Your task to perform on an android device: install app "Expedia: Hotels, Flights & Car" Image 0: 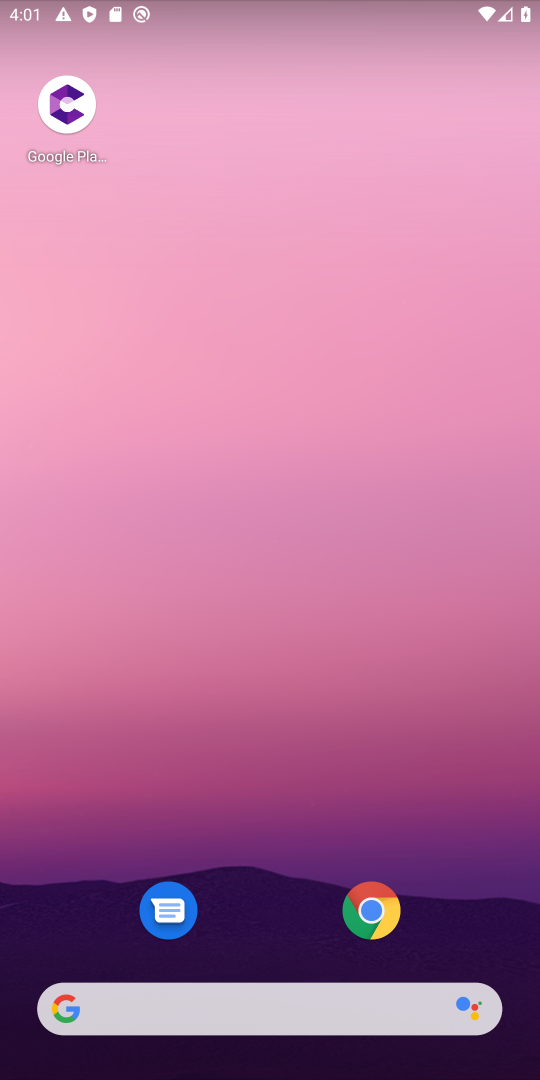
Step 0: press home button
Your task to perform on an android device: install app "Expedia: Hotels, Flights & Car" Image 1: 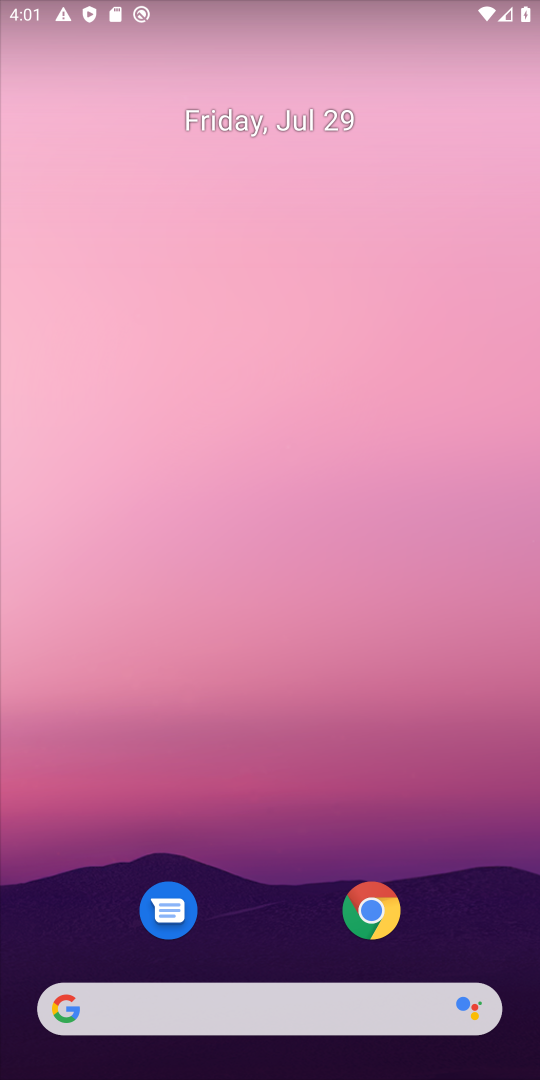
Step 1: drag from (303, 739) to (421, 28)
Your task to perform on an android device: install app "Expedia: Hotels, Flights & Car" Image 2: 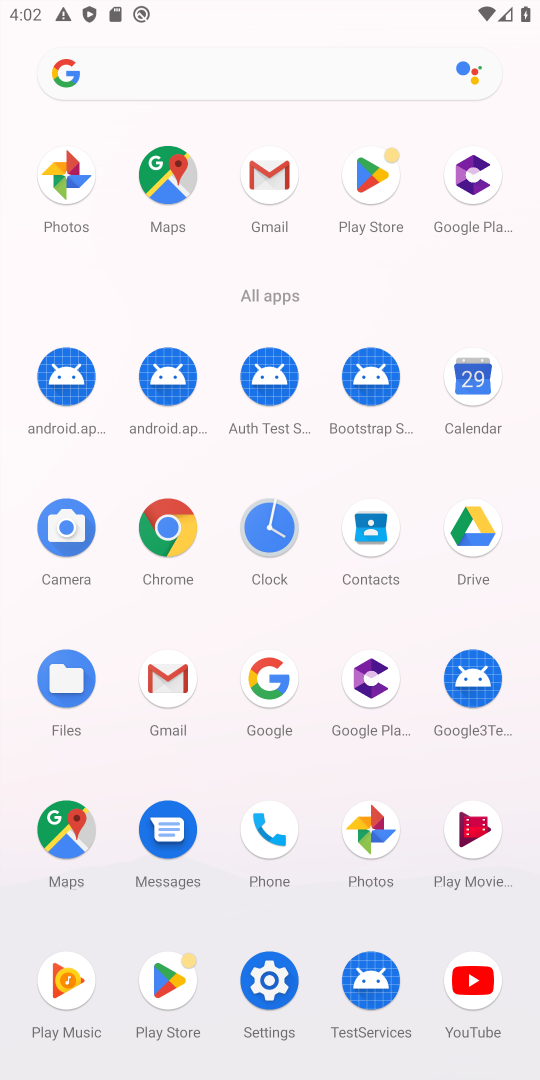
Step 2: click (173, 972)
Your task to perform on an android device: install app "Expedia: Hotels, Flights & Car" Image 3: 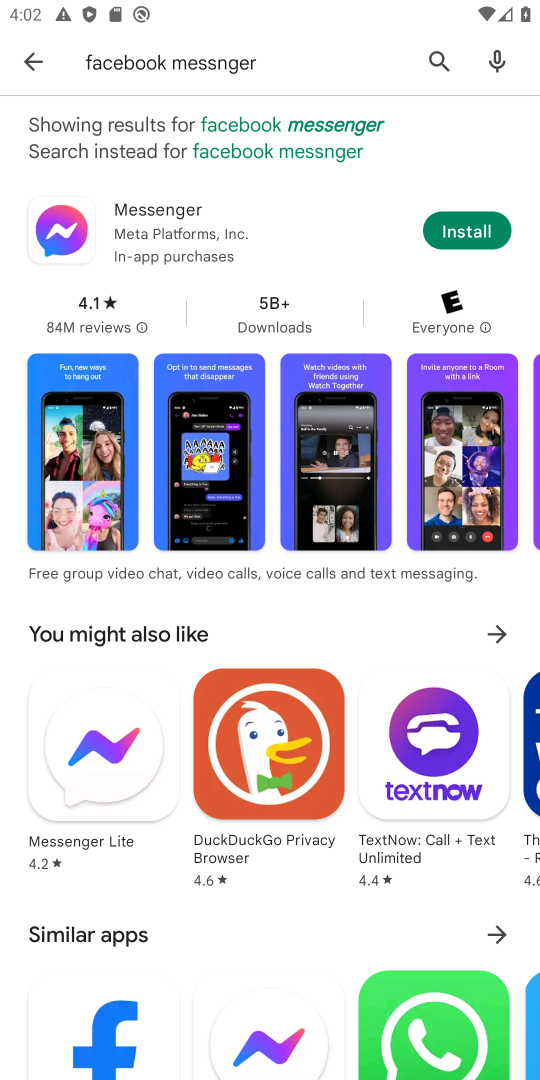
Step 3: click (28, 59)
Your task to perform on an android device: install app "Expedia: Hotels, Flights & Car" Image 4: 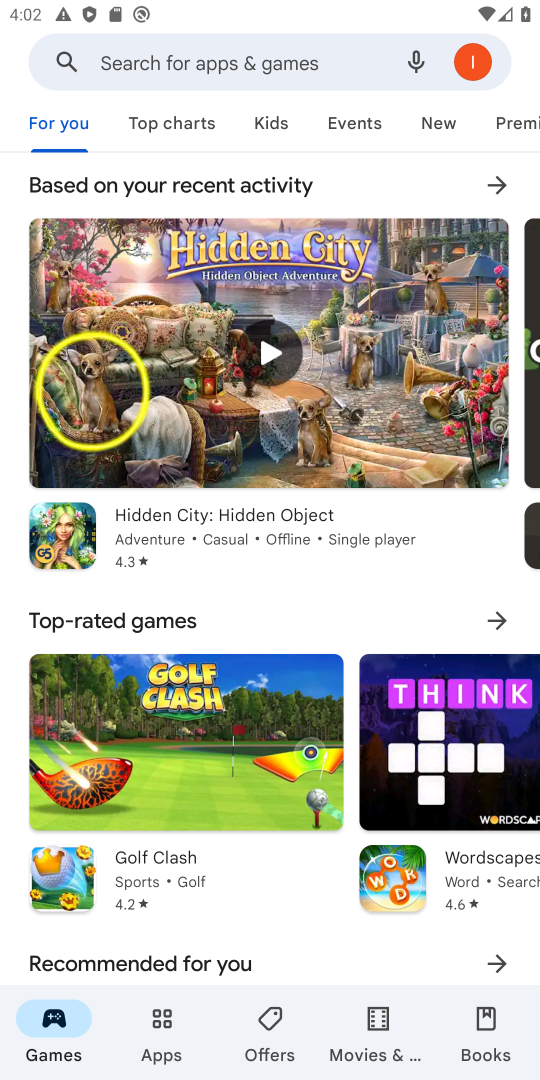
Step 4: click (103, 58)
Your task to perform on an android device: install app "Expedia: Hotels, Flights & Car" Image 5: 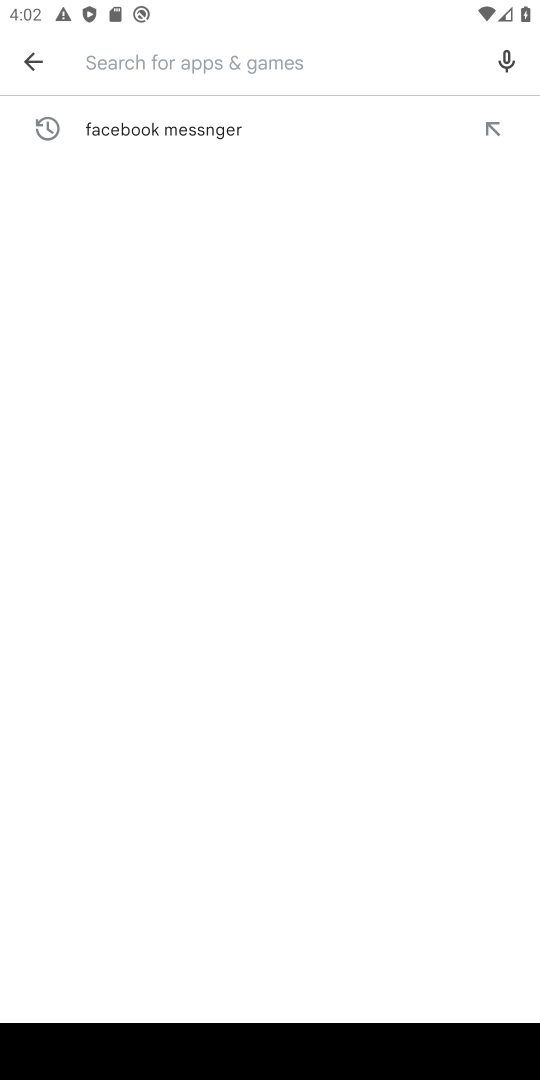
Step 5: type "Expedia: Hotels, Flights & Car"
Your task to perform on an android device: install app "Expedia: Hotels, Flights & Car" Image 6: 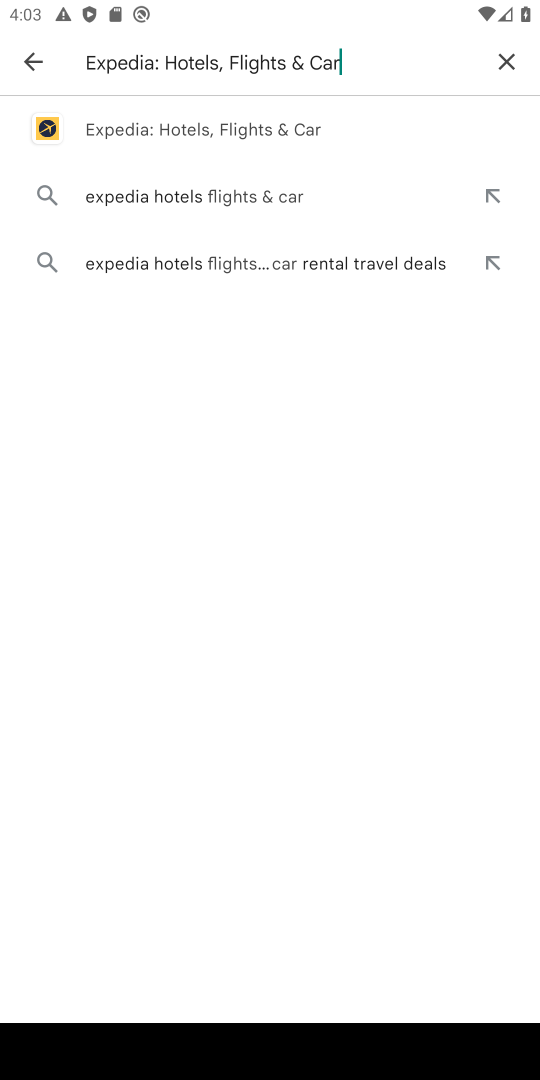
Step 6: click (232, 122)
Your task to perform on an android device: install app "Expedia: Hotels, Flights & Car" Image 7: 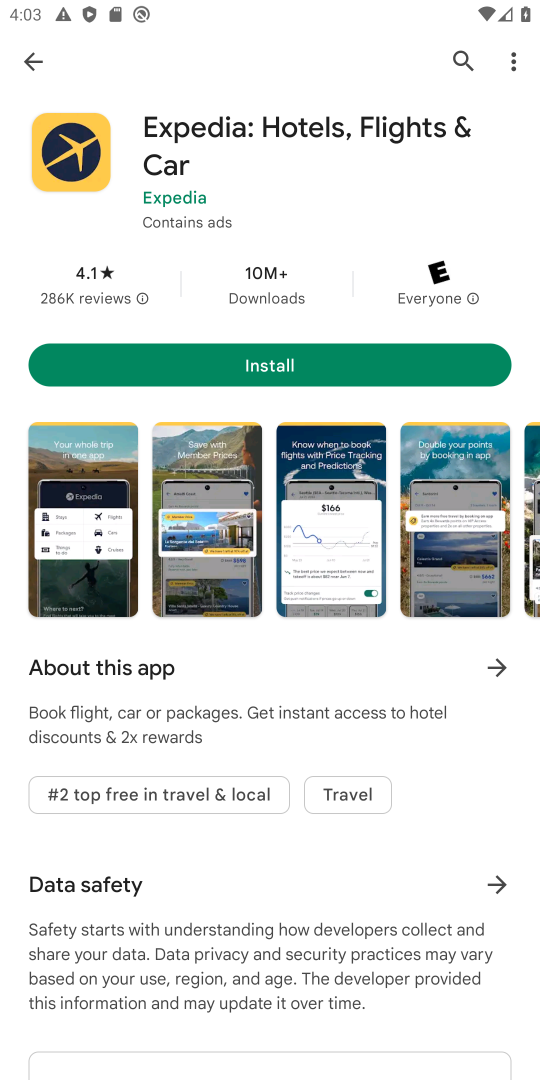
Step 7: click (459, 361)
Your task to perform on an android device: install app "Expedia: Hotels, Flights & Car" Image 8: 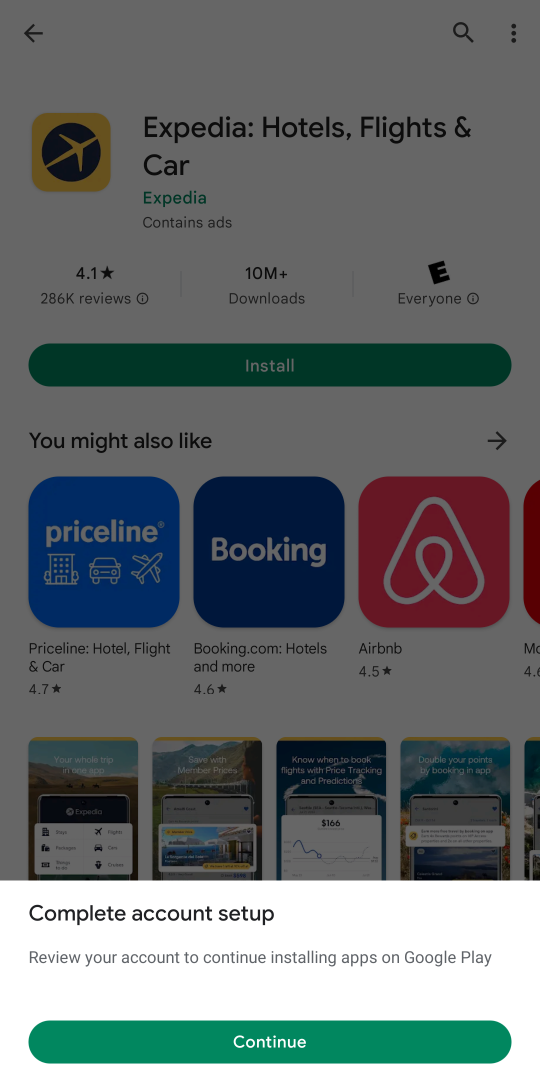
Step 8: click (409, 1026)
Your task to perform on an android device: install app "Expedia: Hotels, Flights & Car" Image 9: 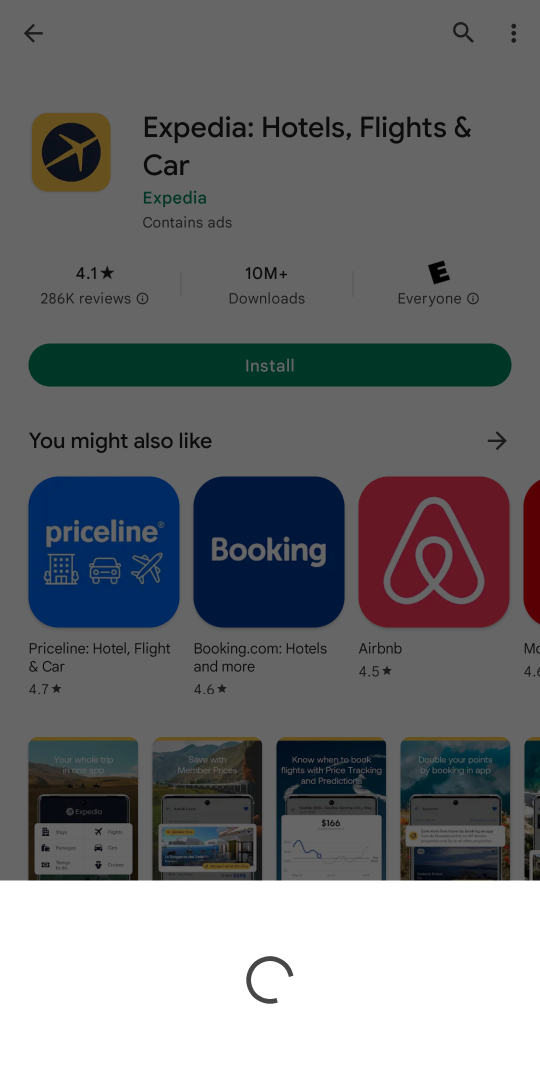
Step 9: click (410, 1030)
Your task to perform on an android device: install app "Expedia: Hotels, Flights & Car" Image 10: 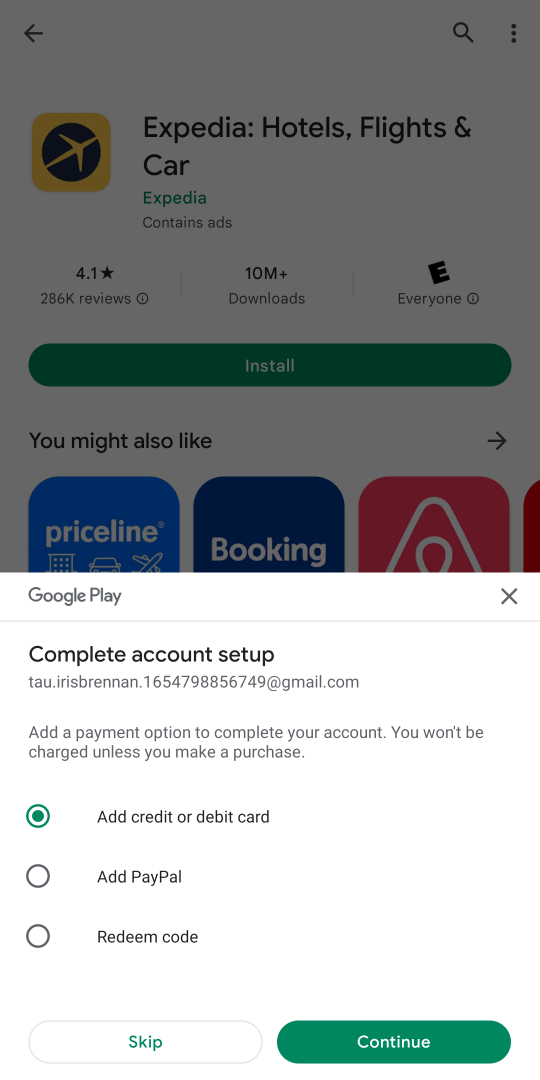
Step 10: click (127, 1040)
Your task to perform on an android device: install app "Expedia: Hotels, Flights & Car" Image 11: 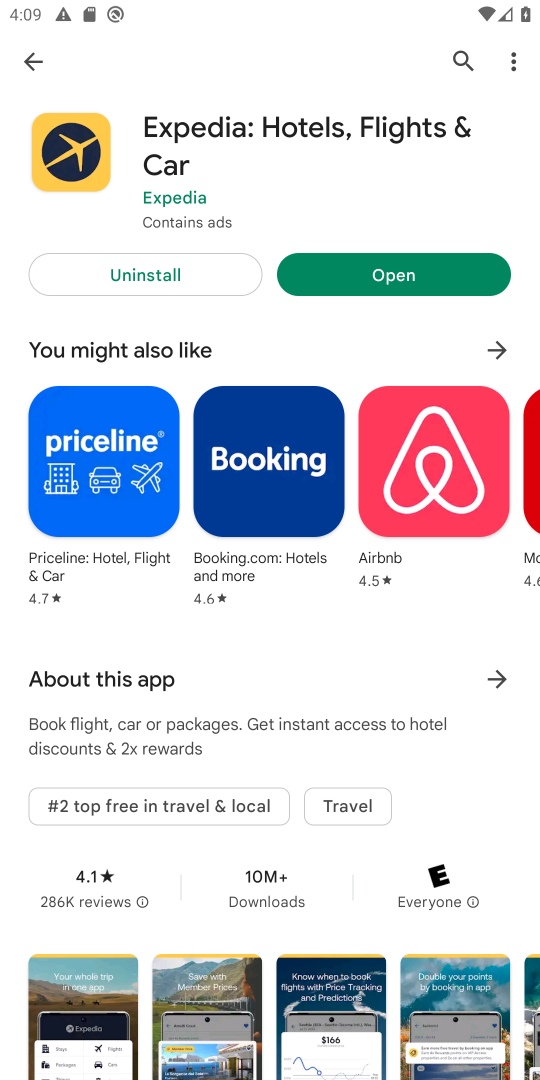
Step 11: task complete